Your task to perform on an android device: add a contact Image 0: 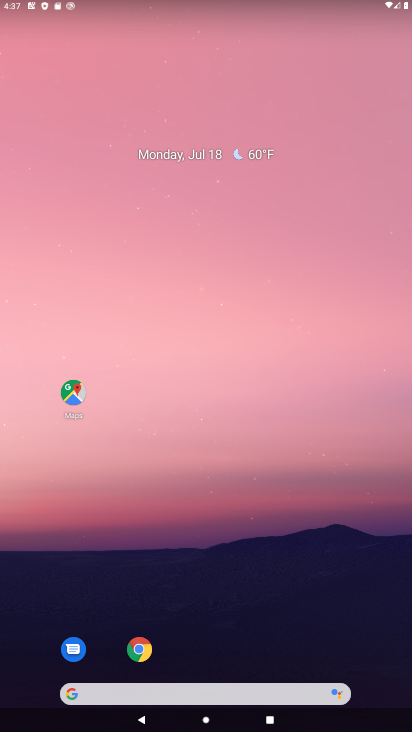
Step 0: drag from (219, 620) to (224, 11)
Your task to perform on an android device: add a contact Image 1: 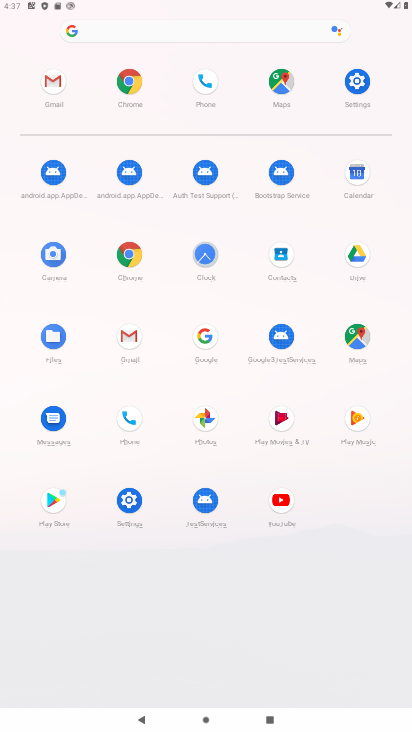
Step 1: click (273, 270)
Your task to perform on an android device: add a contact Image 2: 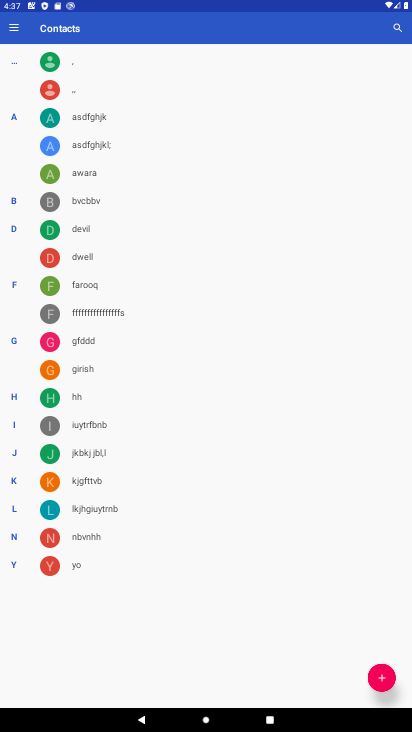
Step 2: click (390, 669)
Your task to perform on an android device: add a contact Image 3: 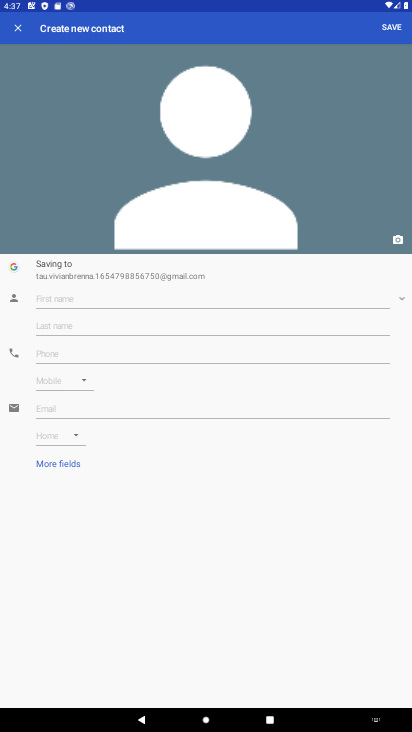
Step 3: click (238, 296)
Your task to perform on an android device: add a contact Image 4: 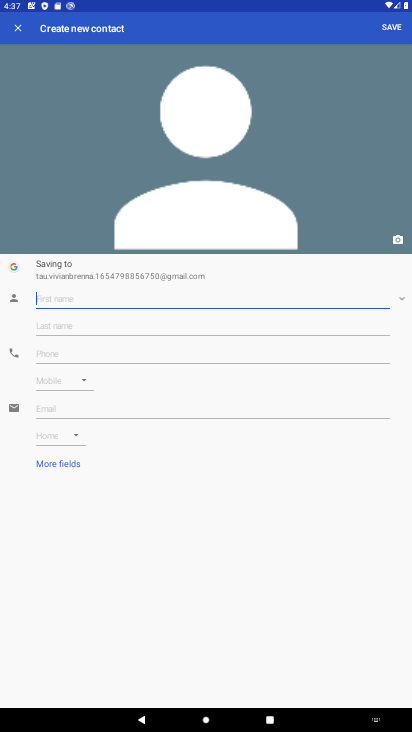
Step 4: type "dumbler"
Your task to perform on an android device: add a contact Image 5: 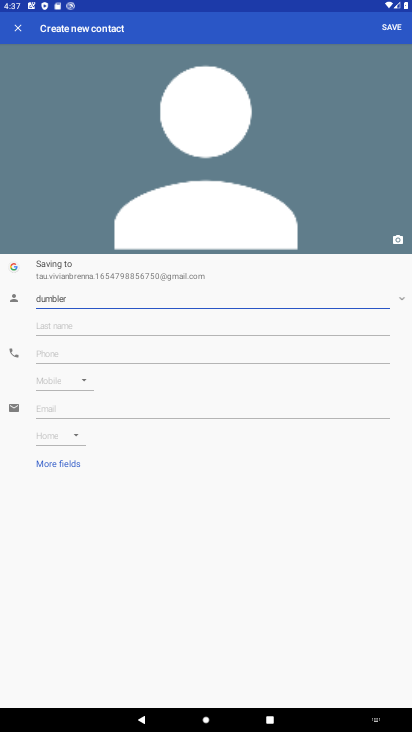
Step 5: click (397, 23)
Your task to perform on an android device: add a contact Image 6: 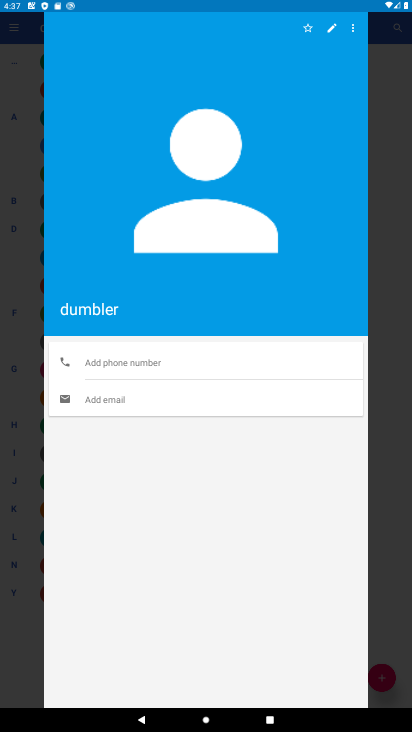
Step 6: task complete